Your task to perform on an android device: read, delete, or share a saved page in the chrome app Image 0: 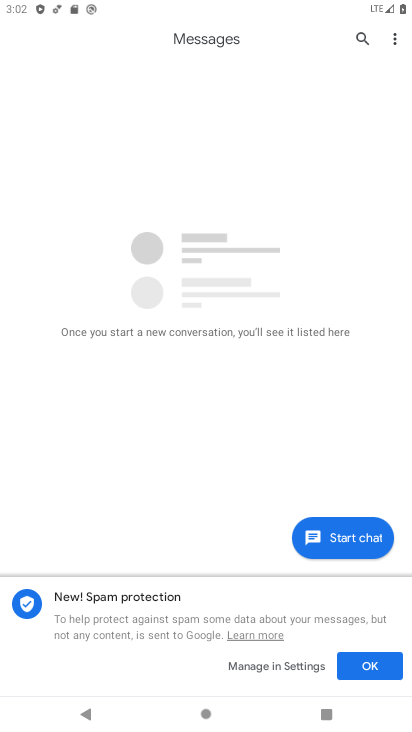
Step 0: press home button
Your task to perform on an android device: read, delete, or share a saved page in the chrome app Image 1: 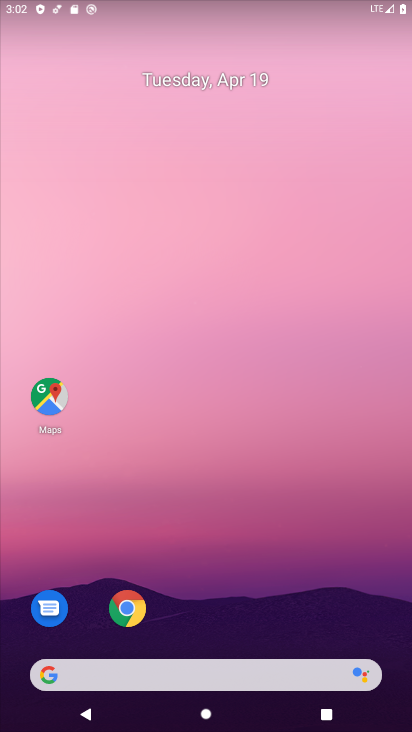
Step 1: drag from (278, 601) to (401, 28)
Your task to perform on an android device: read, delete, or share a saved page in the chrome app Image 2: 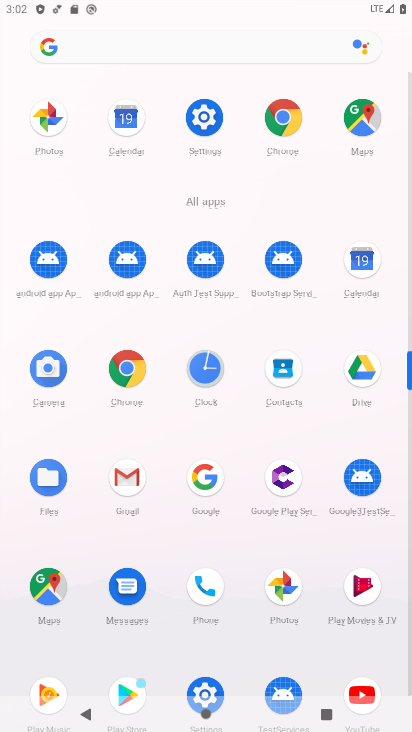
Step 2: click (283, 114)
Your task to perform on an android device: read, delete, or share a saved page in the chrome app Image 3: 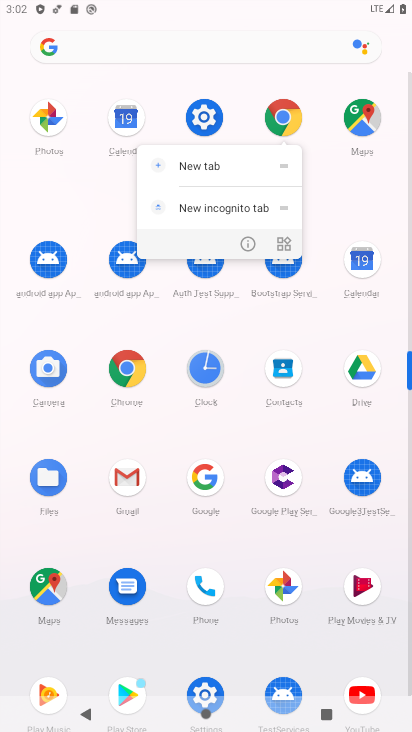
Step 3: click (267, 118)
Your task to perform on an android device: read, delete, or share a saved page in the chrome app Image 4: 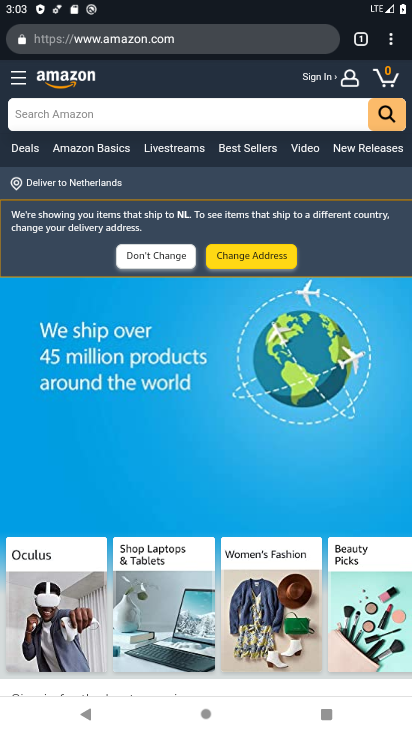
Step 4: drag from (402, 41) to (247, 314)
Your task to perform on an android device: read, delete, or share a saved page in the chrome app Image 5: 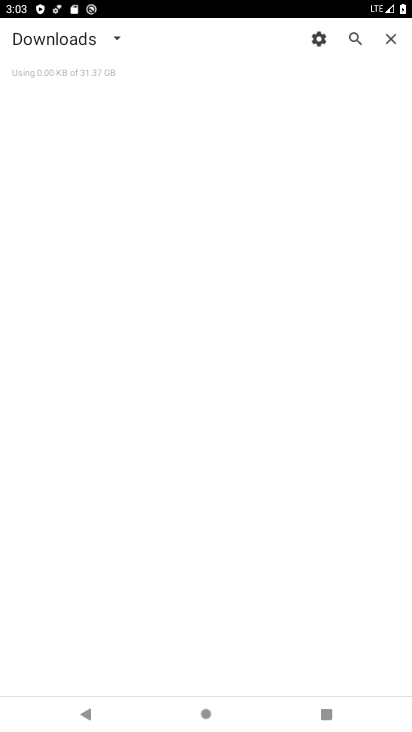
Step 5: click (116, 42)
Your task to perform on an android device: read, delete, or share a saved page in the chrome app Image 6: 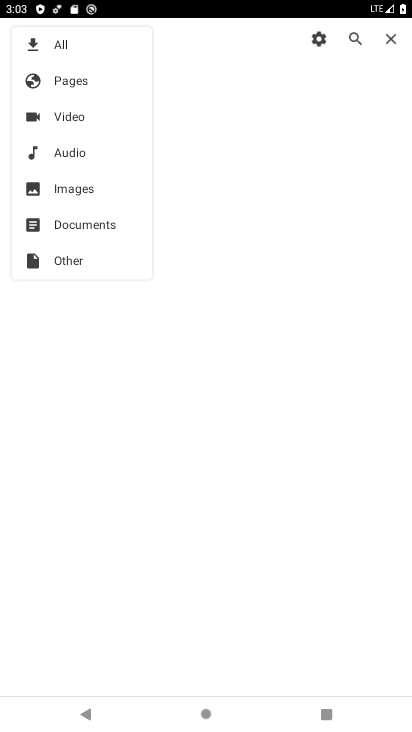
Step 6: click (67, 89)
Your task to perform on an android device: read, delete, or share a saved page in the chrome app Image 7: 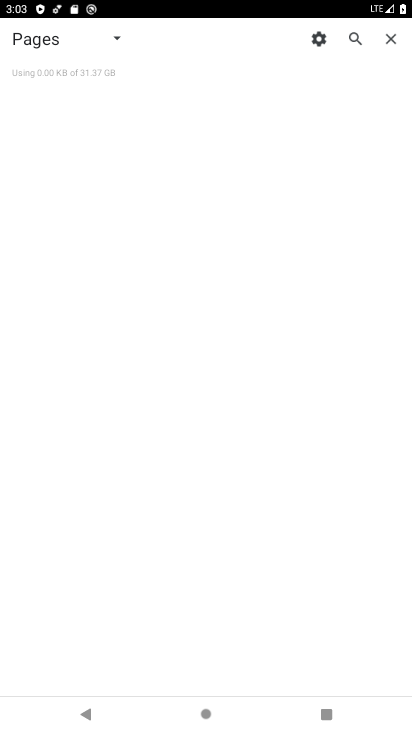
Step 7: task complete